Your task to perform on an android device: Open Google Maps and go to "Timeline" Image 0: 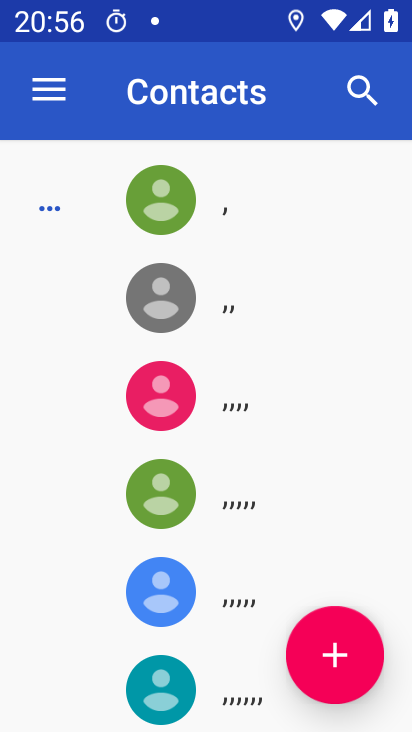
Step 0: press home button
Your task to perform on an android device: Open Google Maps and go to "Timeline" Image 1: 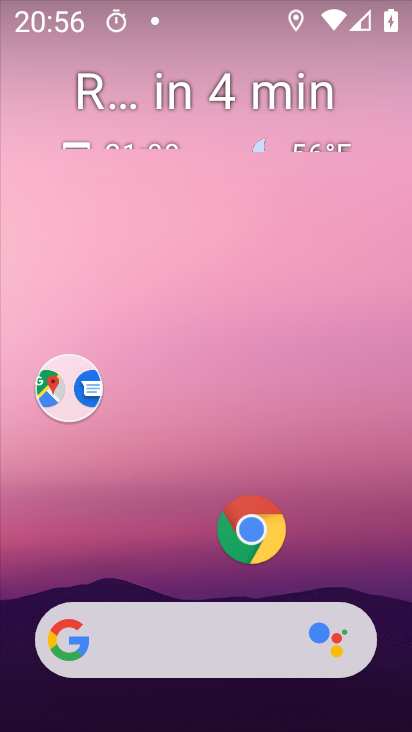
Step 1: drag from (169, 544) to (152, 21)
Your task to perform on an android device: Open Google Maps and go to "Timeline" Image 2: 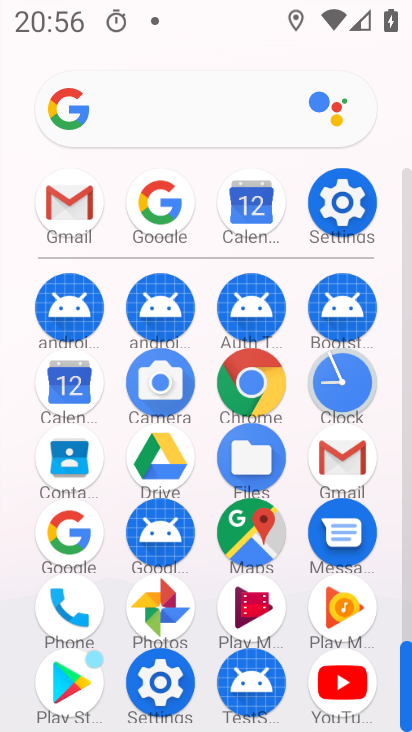
Step 2: click (259, 538)
Your task to perform on an android device: Open Google Maps and go to "Timeline" Image 3: 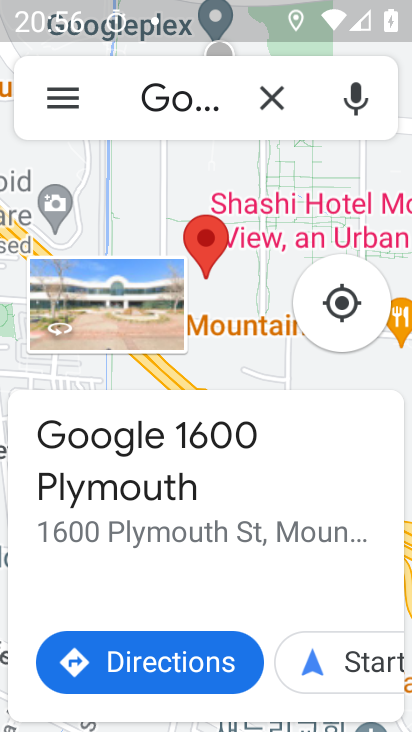
Step 3: click (68, 82)
Your task to perform on an android device: Open Google Maps and go to "Timeline" Image 4: 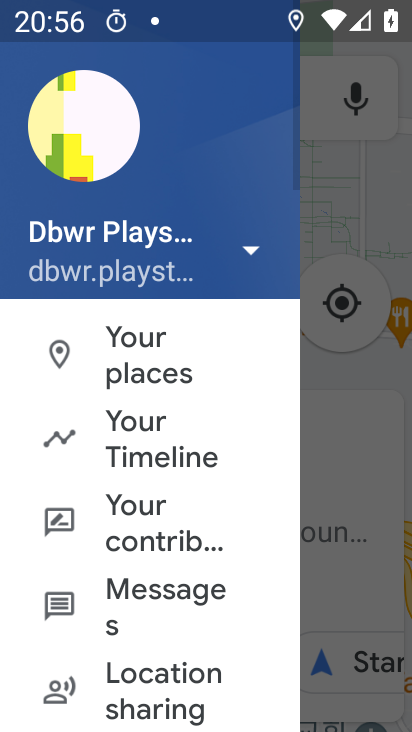
Step 4: click (99, 441)
Your task to perform on an android device: Open Google Maps and go to "Timeline" Image 5: 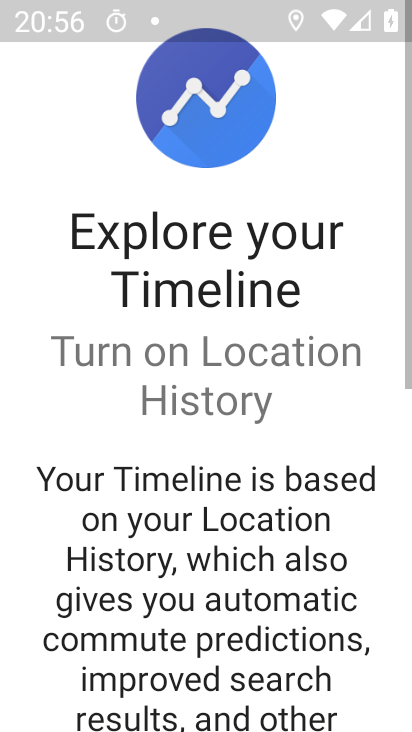
Step 5: drag from (241, 506) to (255, 15)
Your task to perform on an android device: Open Google Maps and go to "Timeline" Image 6: 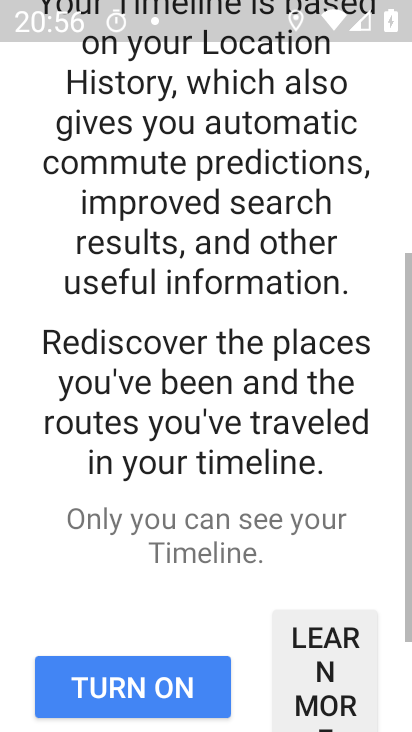
Step 6: drag from (273, 642) to (219, 284)
Your task to perform on an android device: Open Google Maps and go to "Timeline" Image 7: 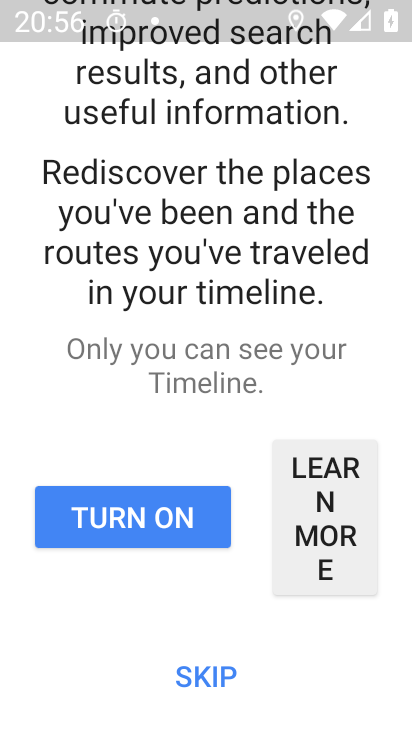
Step 7: click (202, 692)
Your task to perform on an android device: Open Google Maps and go to "Timeline" Image 8: 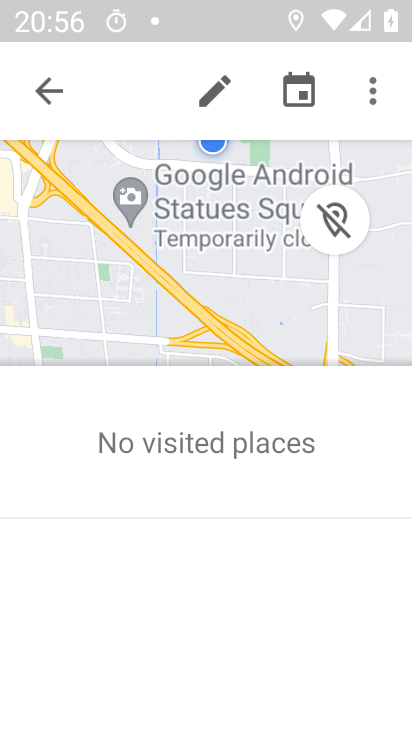
Step 8: task complete